Your task to perform on an android device: Open settings Image 0: 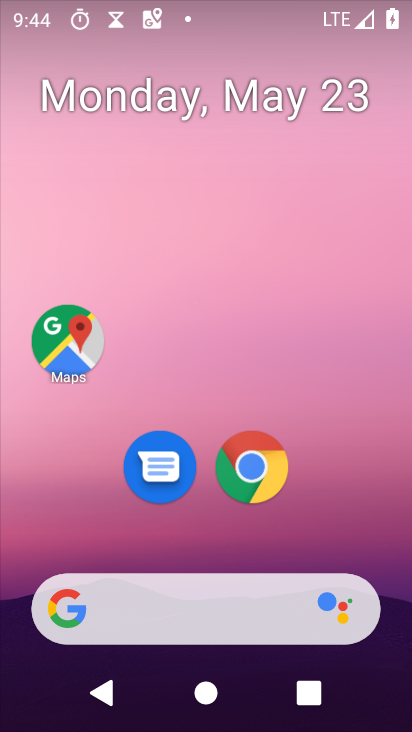
Step 0: drag from (330, 538) to (254, 47)
Your task to perform on an android device: Open settings Image 1: 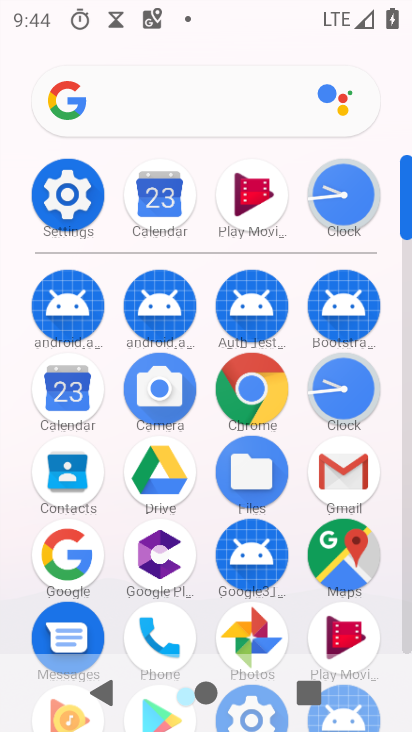
Step 1: click (69, 198)
Your task to perform on an android device: Open settings Image 2: 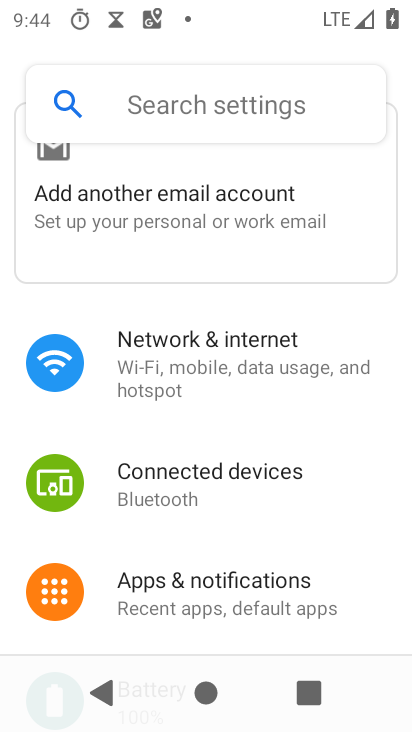
Step 2: task complete